Your task to perform on an android device: What's on my calendar tomorrow? Image 0: 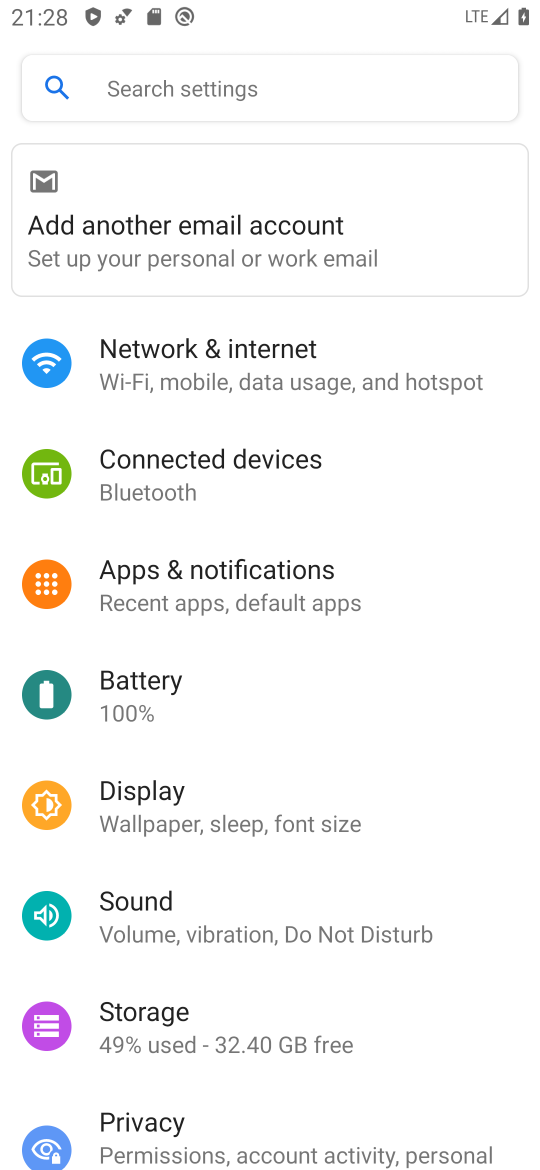
Step 0: press home button
Your task to perform on an android device: What's on my calendar tomorrow? Image 1: 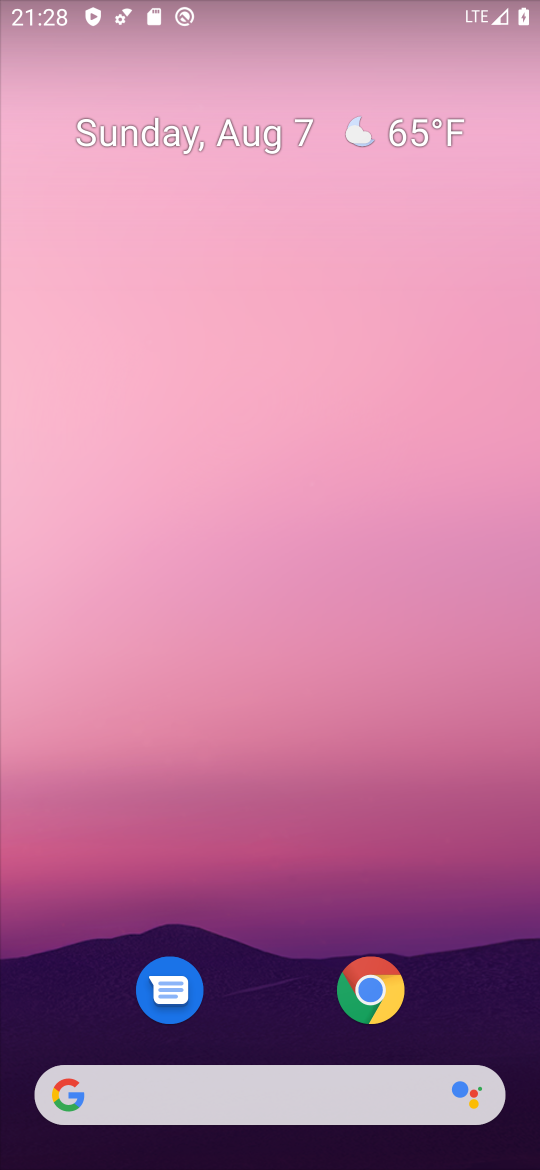
Step 1: drag from (281, 962) to (313, 0)
Your task to perform on an android device: What's on my calendar tomorrow? Image 2: 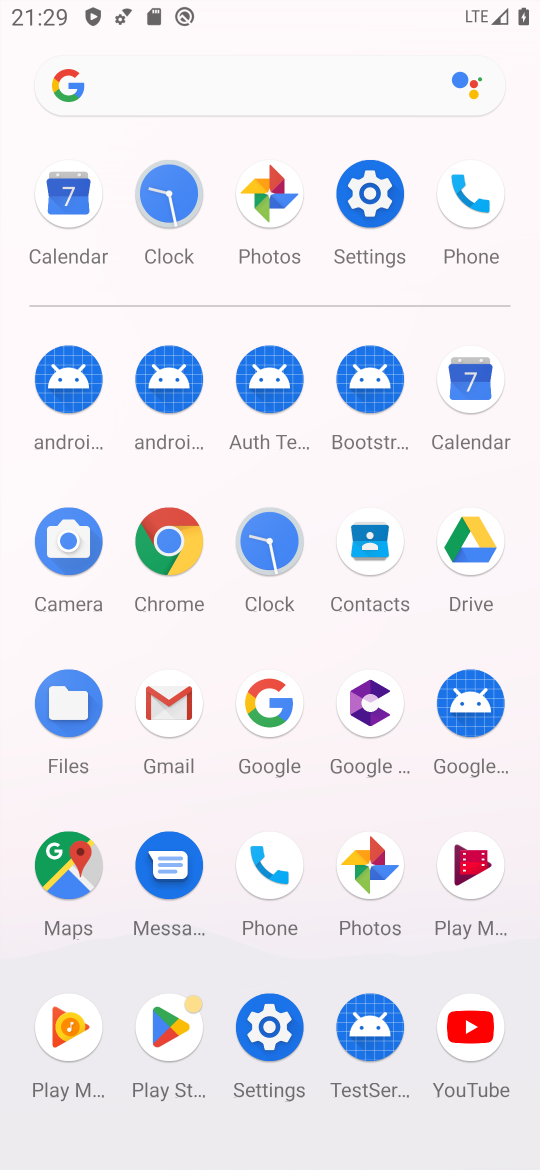
Step 2: click (70, 192)
Your task to perform on an android device: What's on my calendar tomorrow? Image 3: 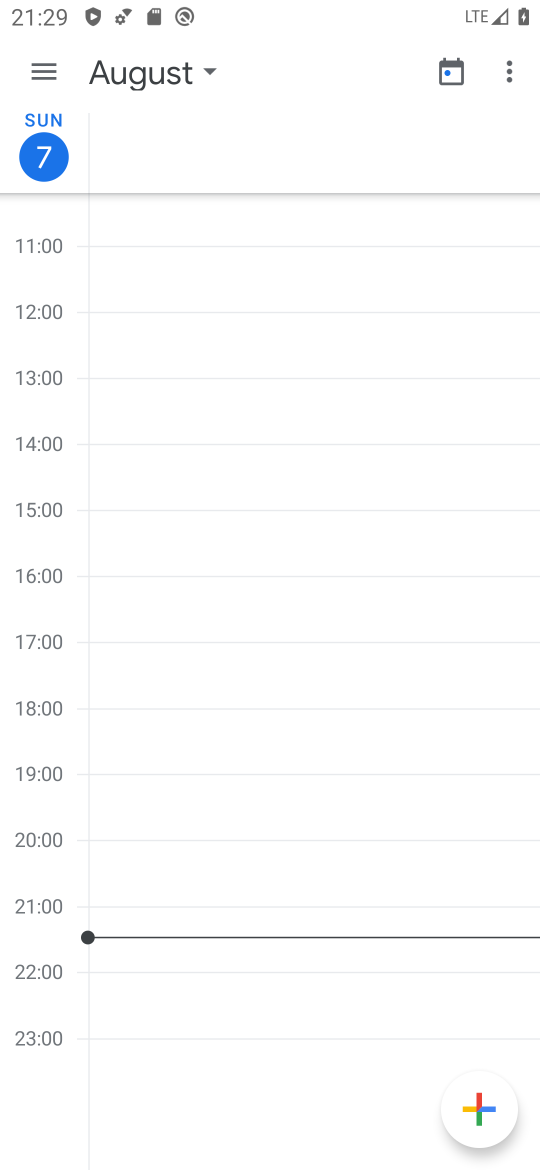
Step 3: click (40, 136)
Your task to perform on an android device: What's on my calendar tomorrow? Image 4: 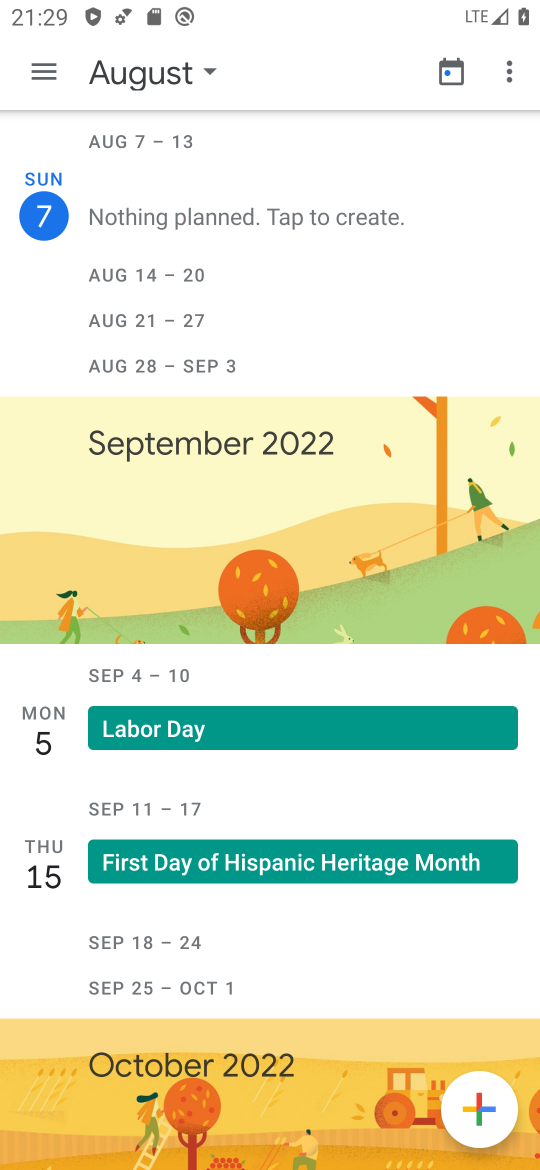
Step 4: task complete